Your task to perform on an android device: add a contact Image 0: 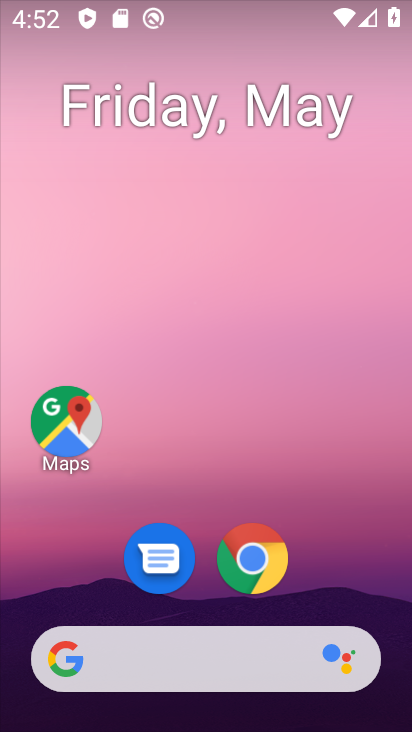
Step 0: drag from (374, 594) to (339, 117)
Your task to perform on an android device: add a contact Image 1: 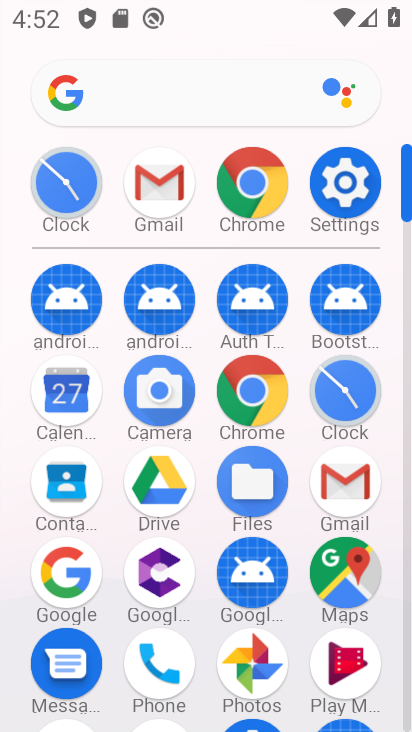
Step 1: click (77, 492)
Your task to perform on an android device: add a contact Image 2: 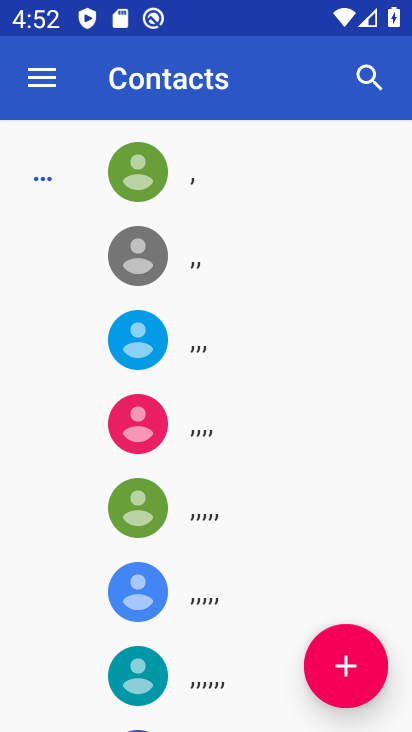
Step 2: click (355, 671)
Your task to perform on an android device: add a contact Image 3: 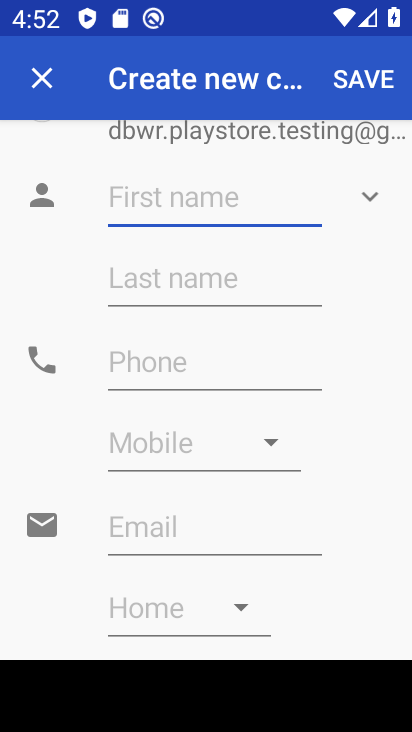
Step 3: click (182, 209)
Your task to perform on an android device: add a contact Image 4: 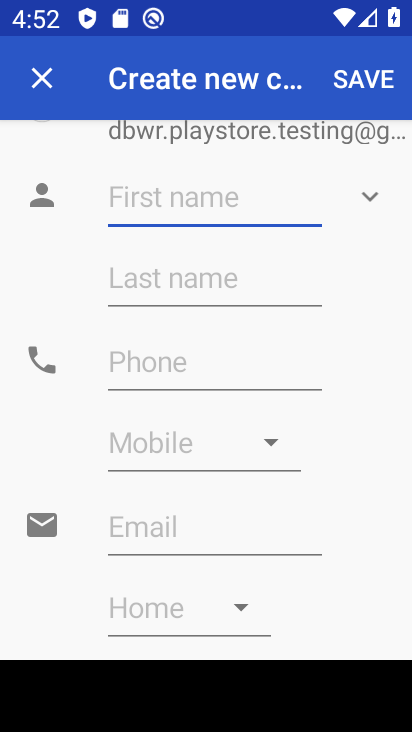
Step 4: type "fgvgjvjv"
Your task to perform on an android device: add a contact Image 5: 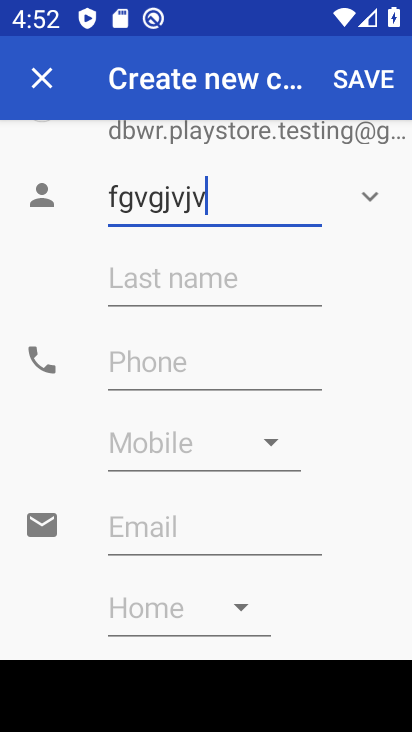
Step 5: click (245, 383)
Your task to perform on an android device: add a contact Image 6: 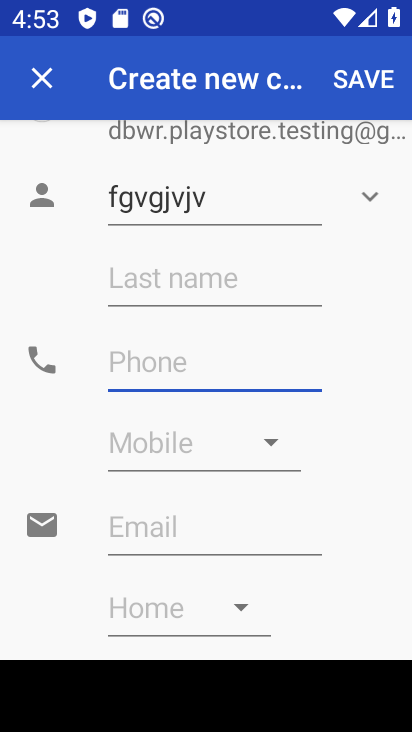
Step 6: type "8687676"
Your task to perform on an android device: add a contact Image 7: 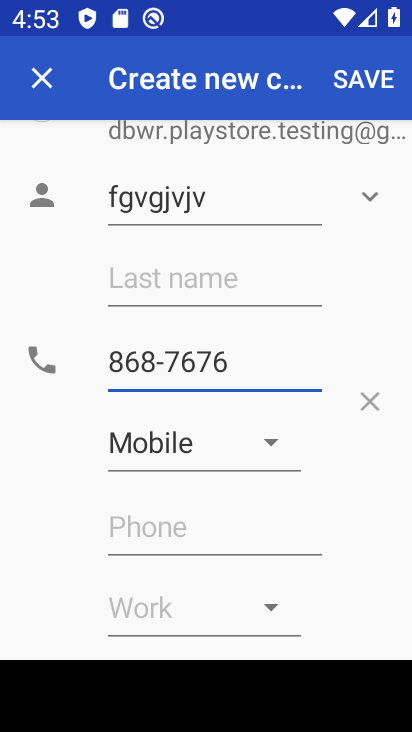
Step 7: click (374, 84)
Your task to perform on an android device: add a contact Image 8: 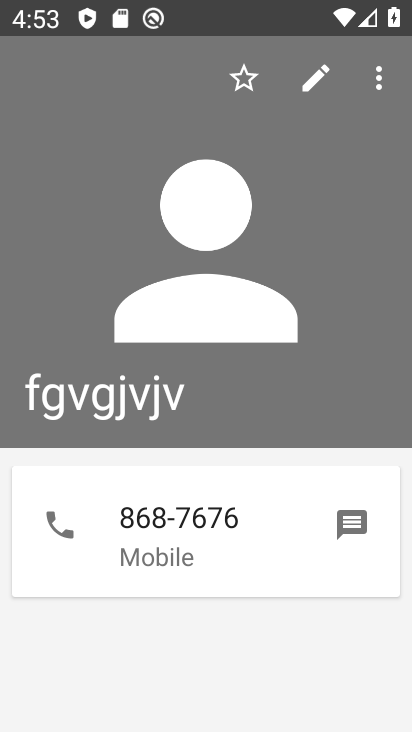
Step 8: task complete